Your task to perform on an android device: empty trash in the gmail app Image 0: 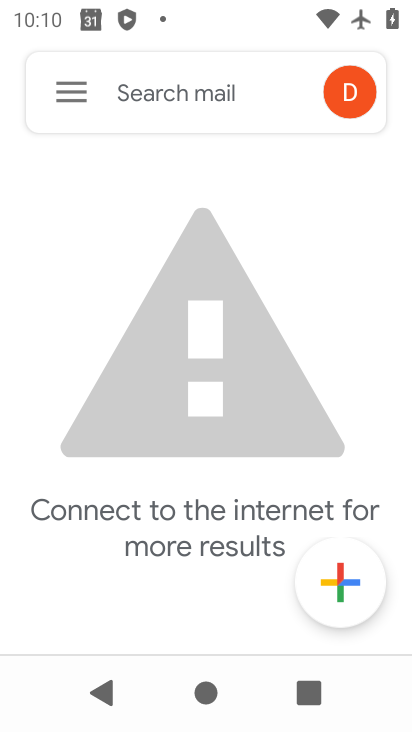
Step 0: click (65, 82)
Your task to perform on an android device: empty trash in the gmail app Image 1: 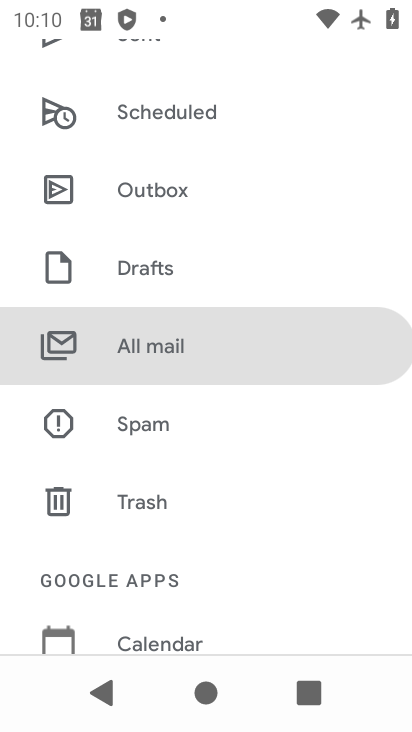
Step 1: click (136, 491)
Your task to perform on an android device: empty trash in the gmail app Image 2: 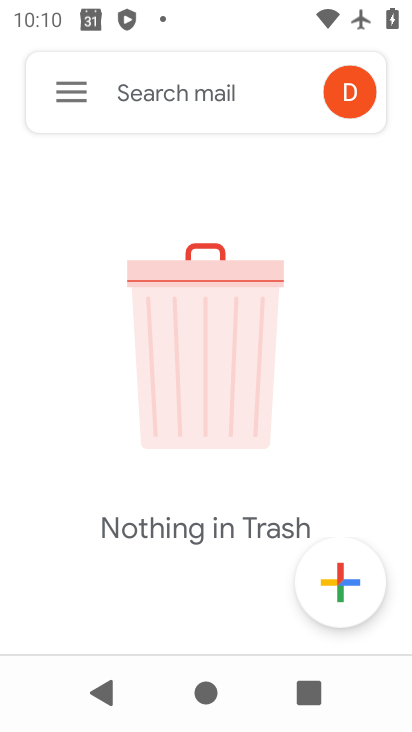
Step 2: task complete